Your task to perform on an android device: Find coffee shops on Maps Image 0: 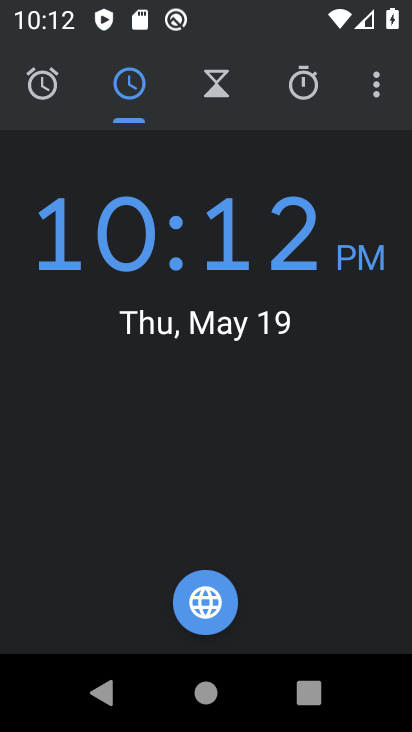
Step 0: press home button
Your task to perform on an android device: Find coffee shops on Maps Image 1: 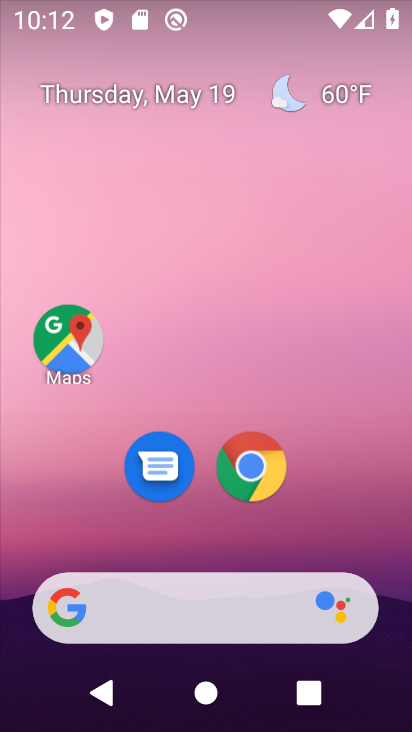
Step 1: click (69, 347)
Your task to perform on an android device: Find coffee shops on Maps Image 2: 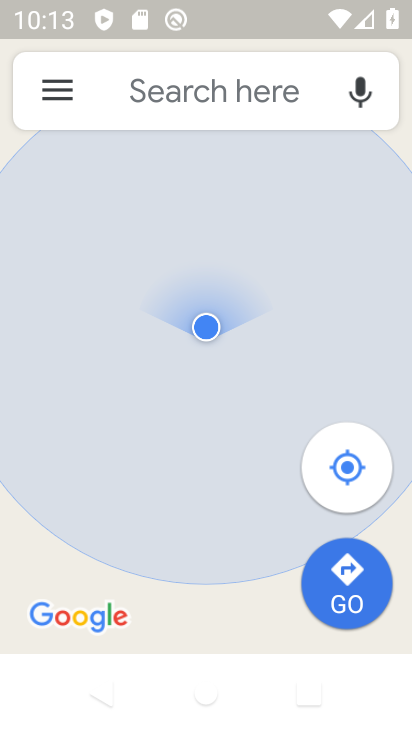
Step 2: click (118, 103)
Your task to perform on an android device: Find coffee shops on Maps Image 3: 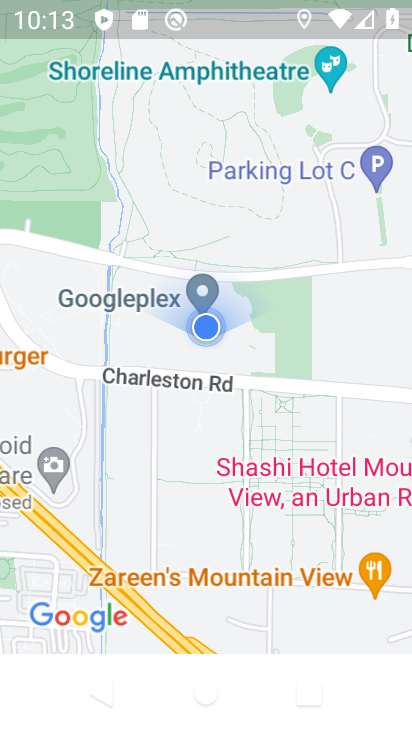
Step 3: drag from (217, 157) to (219, 324)
Your task to perform on an android device: Find coffee shops on Maps Image 4: 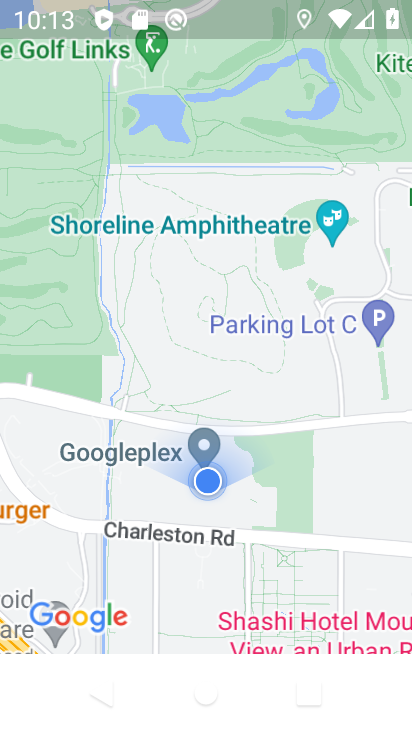
Step 4: press back button
Your task to perform on an android device: Find coffee shops on Maps Image 5: 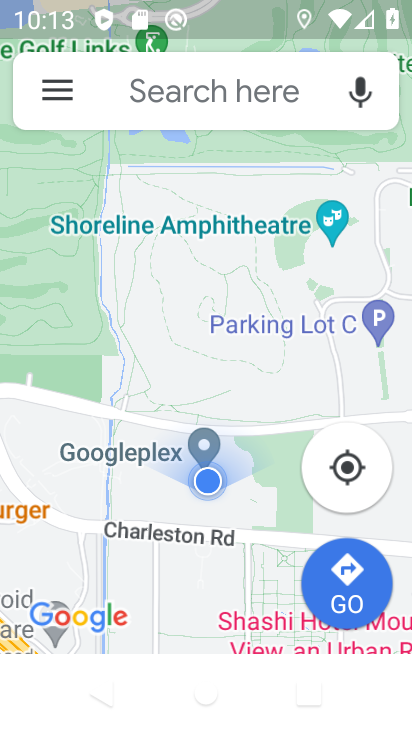
Step 5: click (238, 124)
Your task to perform on an android device: Find coffee shops on Maps Image 6: 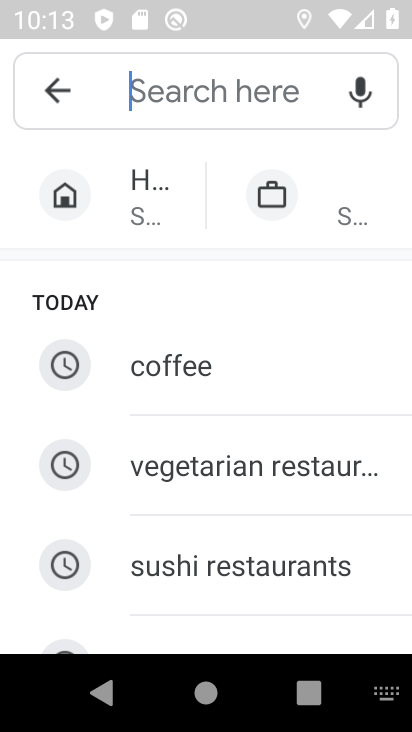
Step 6: type "coffee shop"
Your task to perform on an android device: Find coffee shops on Maps Image 7: 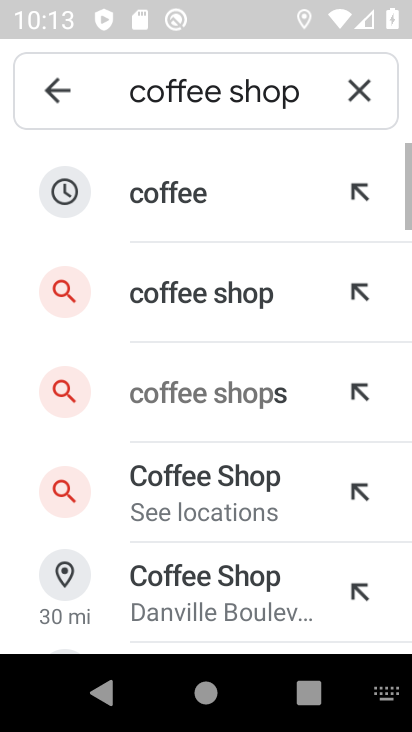
Step 7: click (208, 303)
Your task to perform on an android device: Find coffee shops on Maps Image 8: 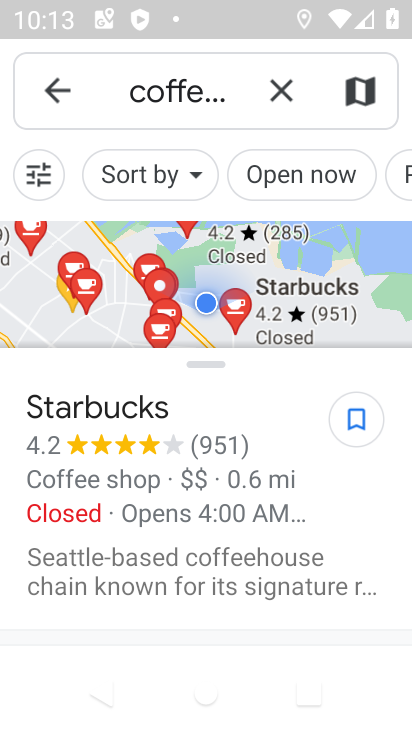
Step 8: task complete